Your task to perform on an android device: turn on priority inbox in the gmail app Image 0: 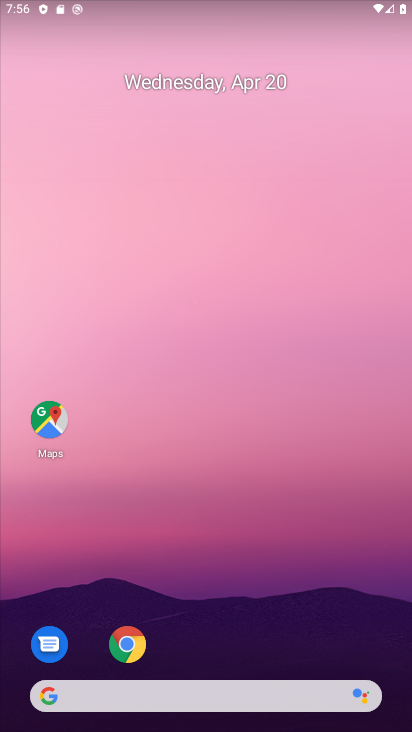
Step 0: click (276, 23)
Your task to perform on an android device: turn on priority inbox in the gmail app Image 1: 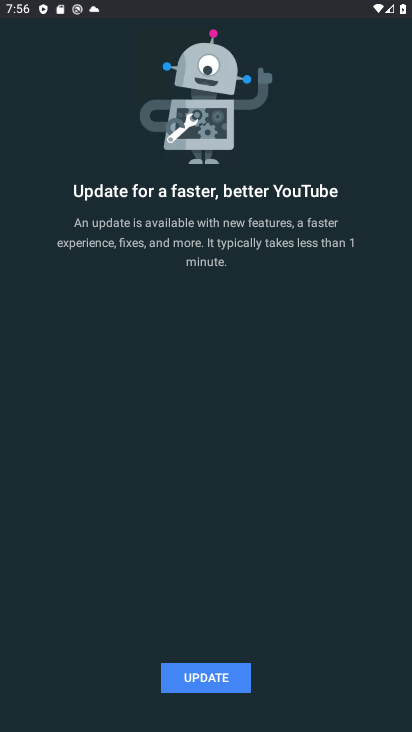
Step 1: press home button
Your task to perform on an android device: turn on priority inbox in the gmail app Image 2: 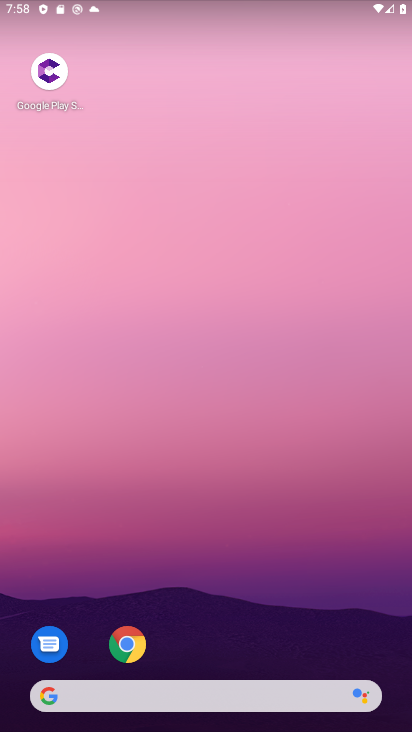
Step 2: drag from (326, 596) to (301, 24)
Your task to perform on an android device: turn on priority inbox in the gmail app Image 3: 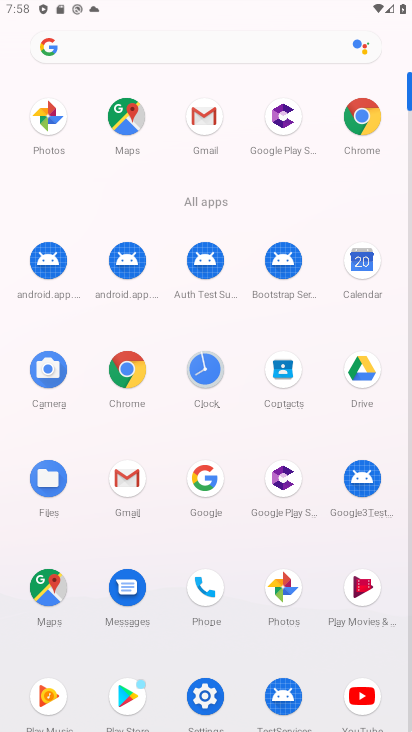
Step 3: click (214, 119)
Your task to perform on an android device: turn on priority inbox in the gmail app Image 4: 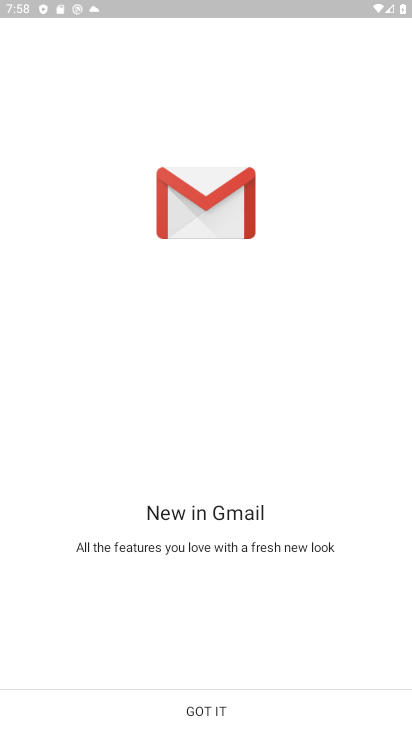
Step 4: click (162, 703)
Your task to perform on an android device: turn on priority inbox in the gmail app Image 5: 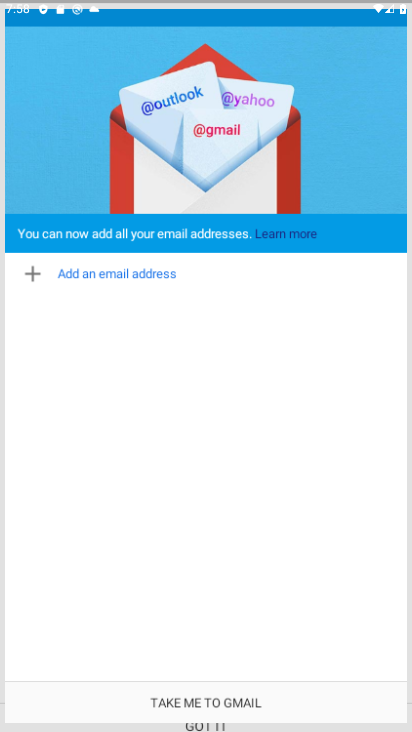
Step 5: click (162, 703)
Your task to perform on an android device: turn on priority inbox in the gmail app Image 6: 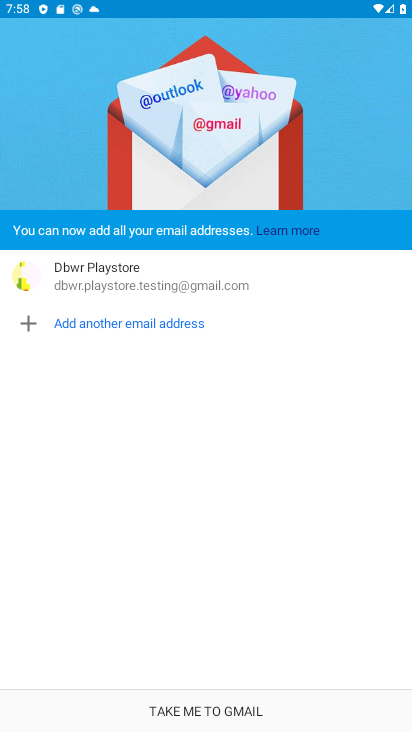
Step 6: click (162, 703)
Your task to perform on an android device: turn on priority inbox in the gmail app Image 7: 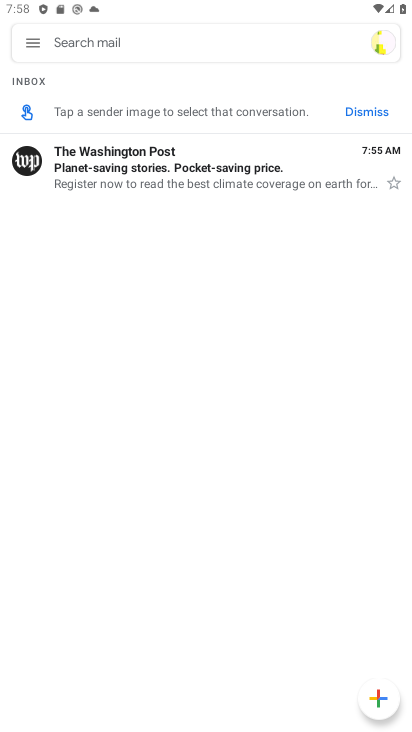
Step 7: click (34, 41)
Your task to perform on an android device: turn on priority inbox in the gmail app Image 8: 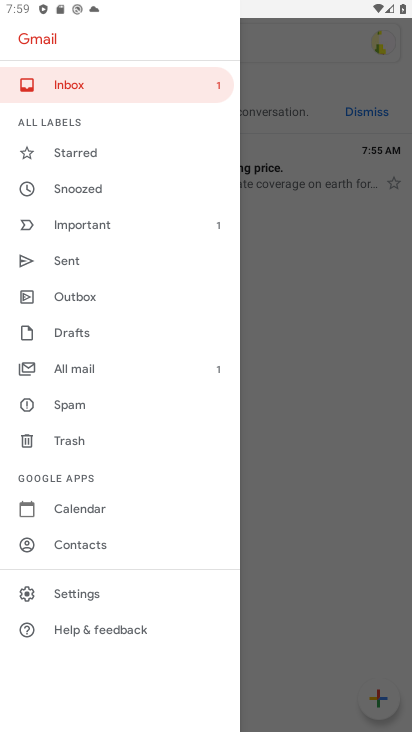
Step 8: click (86, 578)
Your task to perform on an android device: turn on priority inbox in the gmail app Image 9: 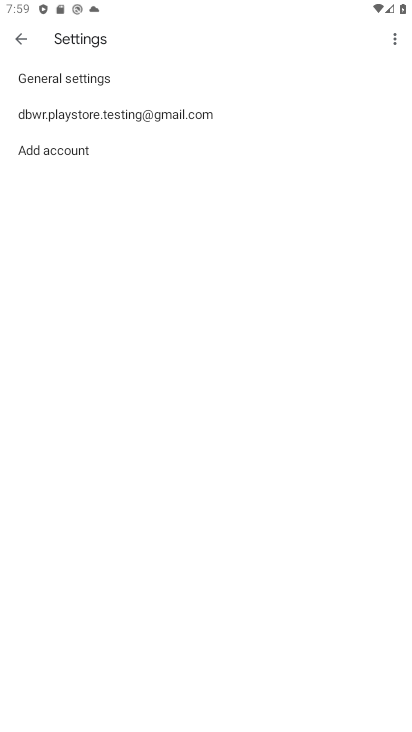
Step 9: click (238, 115)
Your task to perform on an android device: turn on priority inbox in the gmail app Image 10: 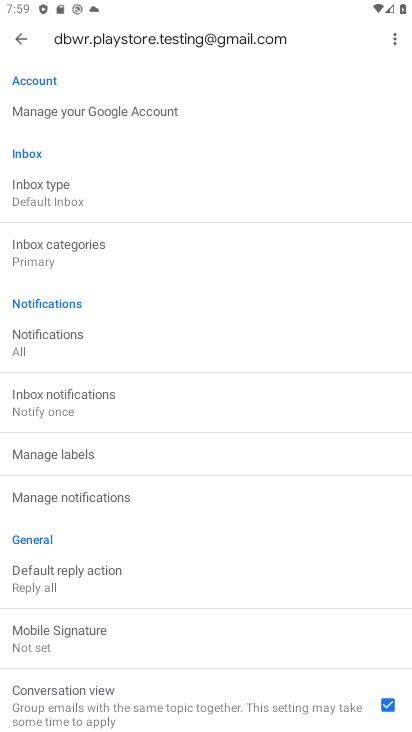
Step 10: click (76, 181)
Your task to perform on an android device: turn on priority inbox in the gmail app Image 11: 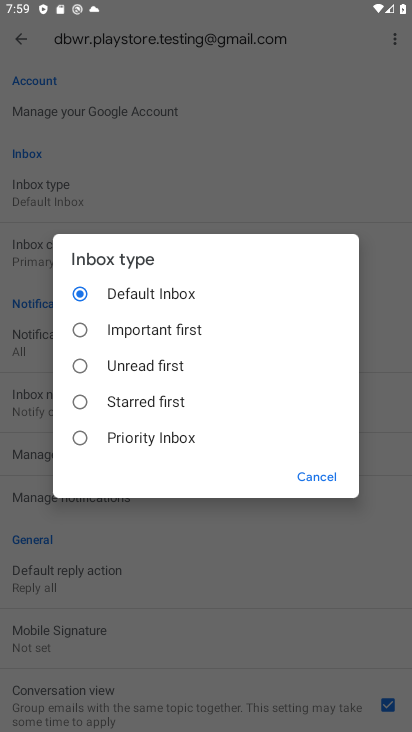
Step 11: click (158, 434)
Your task to perform on an android device: turn on priority inbox in the gmail app Image 12: 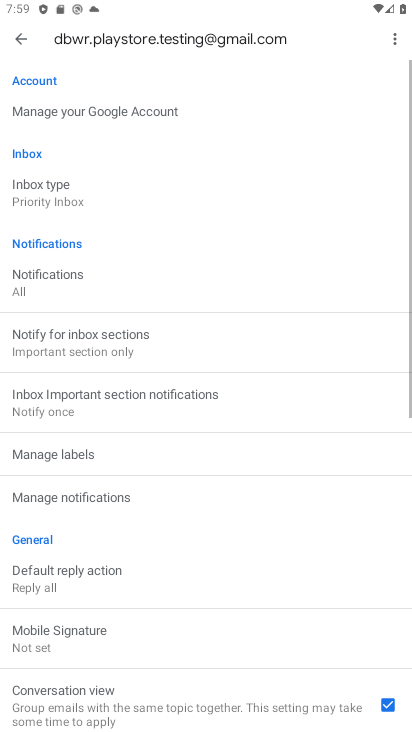
Step 12: task complete